Your task to perform on an android device: toggle sleep mode Image 0: 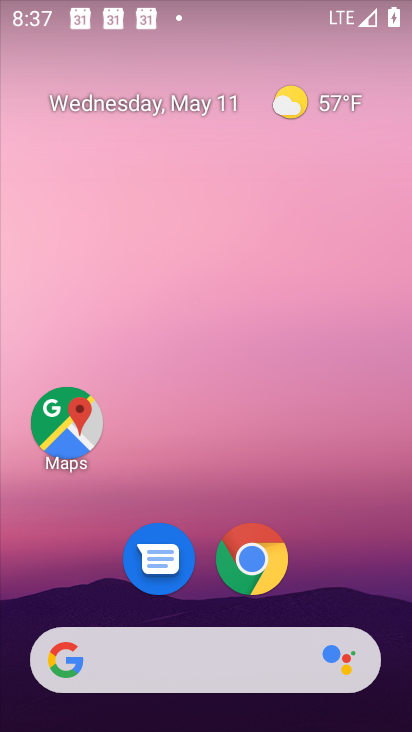
Step 0: press home button
Your task to perform on an android device: toggle sleep mode Image 1: 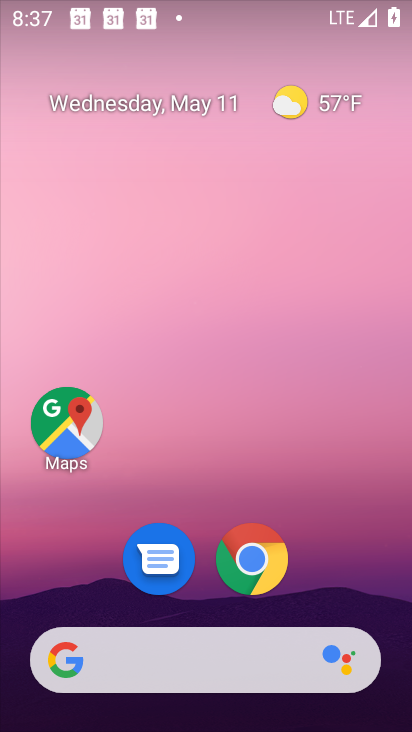
Step 1: drag from (364, 571) to (356, 5)
Your task to perform on an android device: toggle sleep mode Image 2: 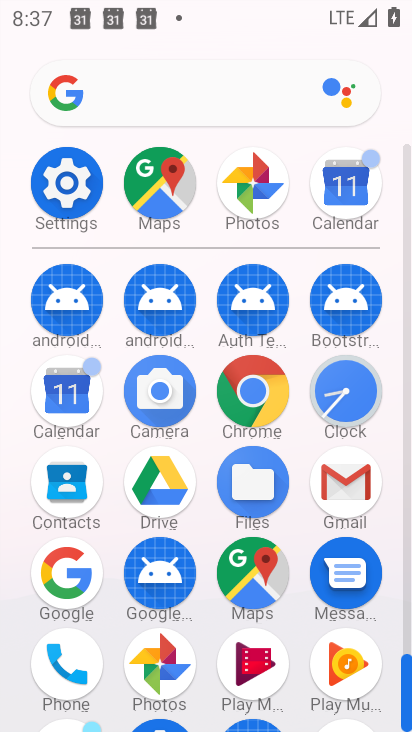
Step 2: click (61, 235)
Your task to perform on an android device: toggle sleep mode Image 3: 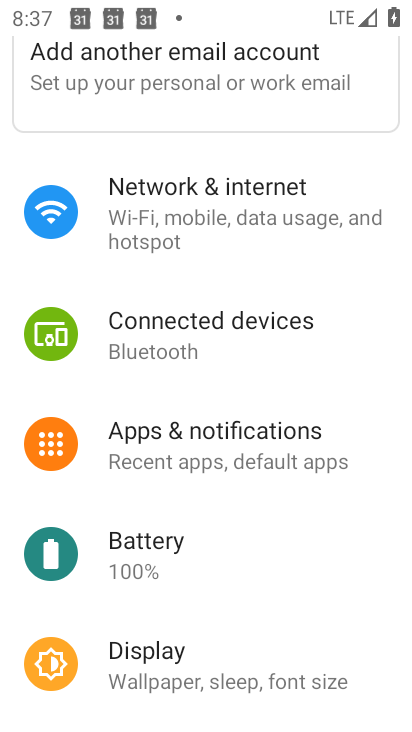
Step 3: click (98, 656)
Your task to perform on an android device: toggle sleep mode Image 4: 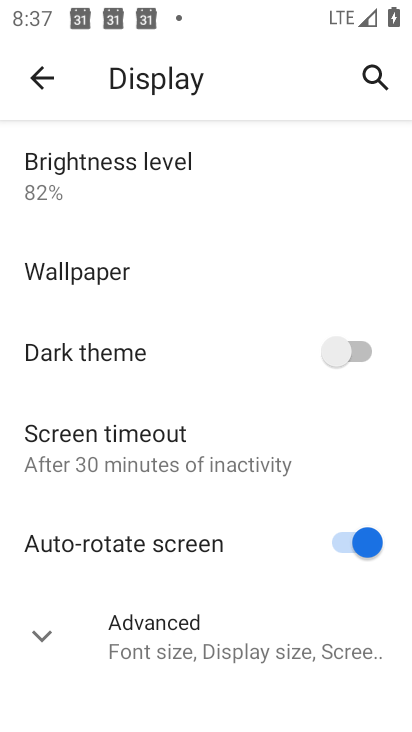
Step 4: task complete